Your task to perform on an android device: Open Google Chrome and open the bookmarks view Image 0: 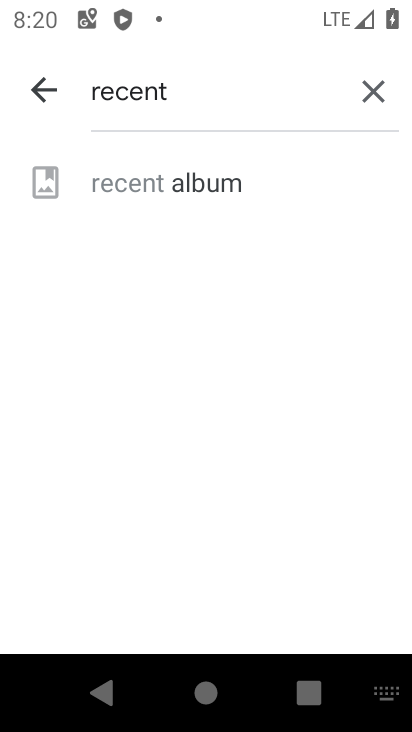
Step 0: press home button
Your task to perform on an android device: Open Google Chrome and open the bookmarks view Image 1: 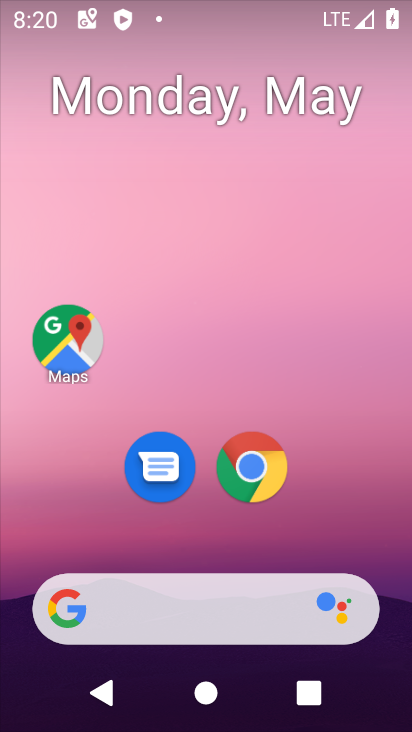
Step 1: click (263, 467)
Your task to perform on an android device: Open Google Chrome and open the bookmarks view Image 2: 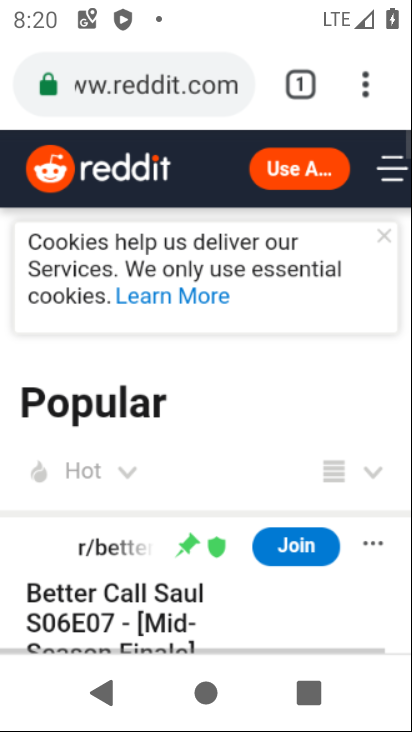
Step 2: click (370, 80)
Your task to perform on an android device: Open Google Chrome and open the bookmarks view Image 3: 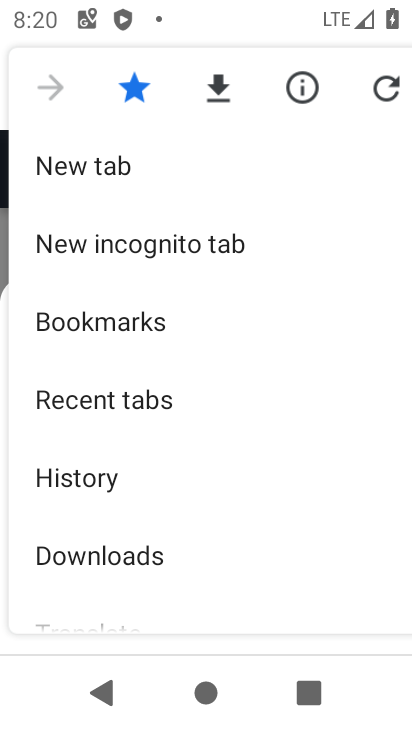
Step 3: click (202, 323)
Your task to perform on an android device: Open Google Chrome and open the bookmarks view Image 4: 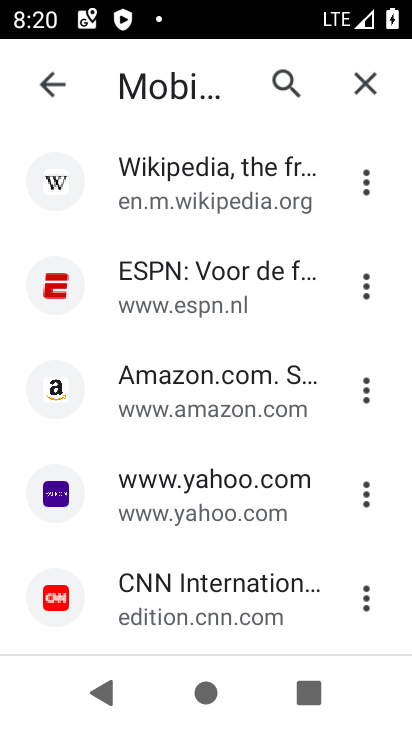
Step 4: click (226, 195)
Your task to perform on an android device: Open Google Chrome and open the bookmarks view Image 5: 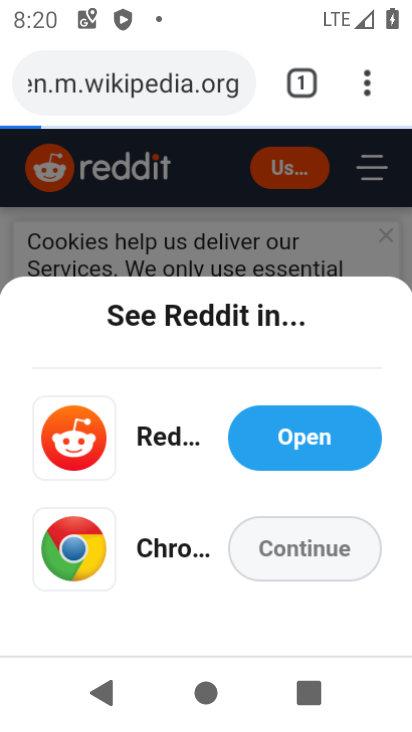
Step 5: task complete